Your task to perform on an android device: add a label to a message in the gmail app Image 0: 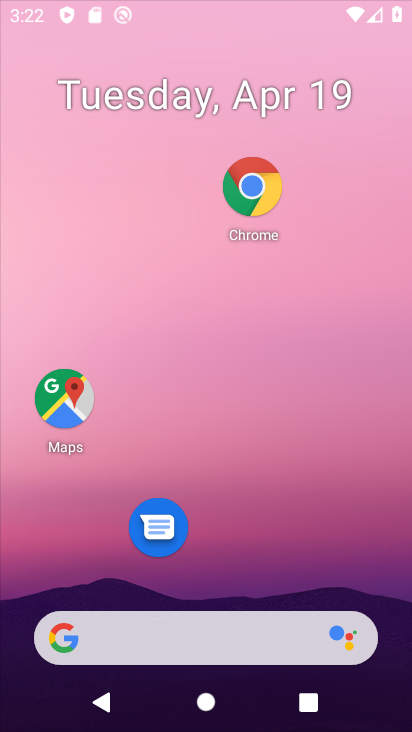
Step 0: click (246, 308)
Your task to perform on an android device: add a label to a message in the gmail app Image 1: 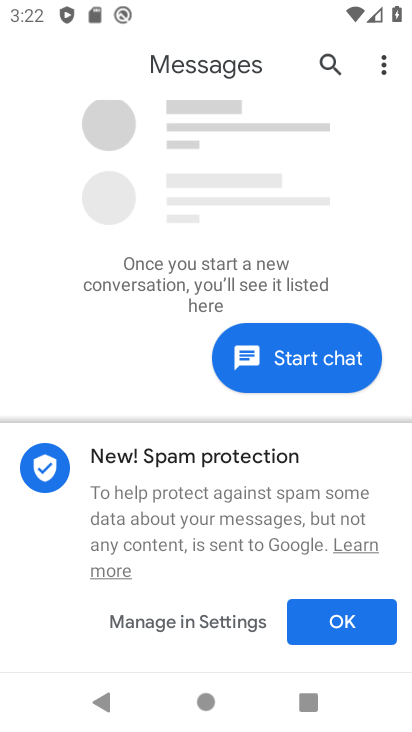
Step 1: press home button
Your task to perform on an android device: add a label to a message in the gmail app Image 2: 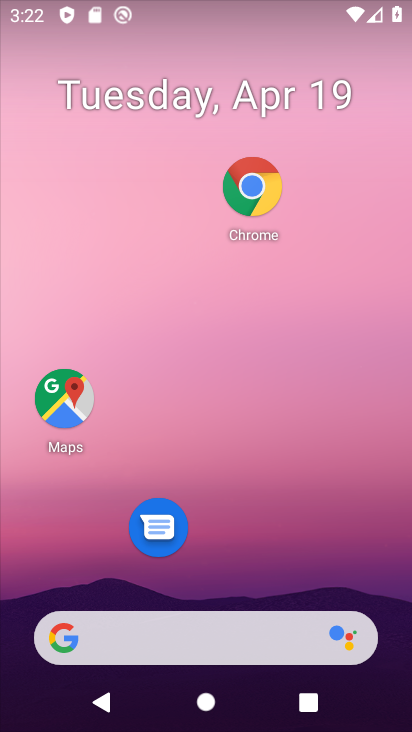
Step 2: drag from (270, 527) to (277, 147)
Your task to perform on an android device: add a label to a message in the gmail app Image 3: 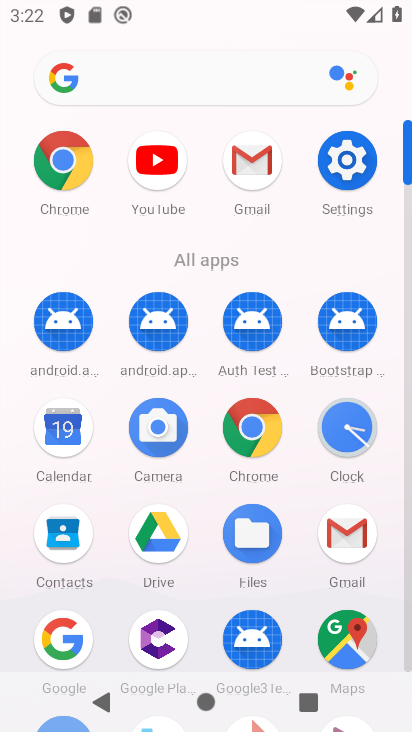
Step 3: click (246, 153)
Your task to perform on an android device: add a label to a message in the gmail app Image 4: 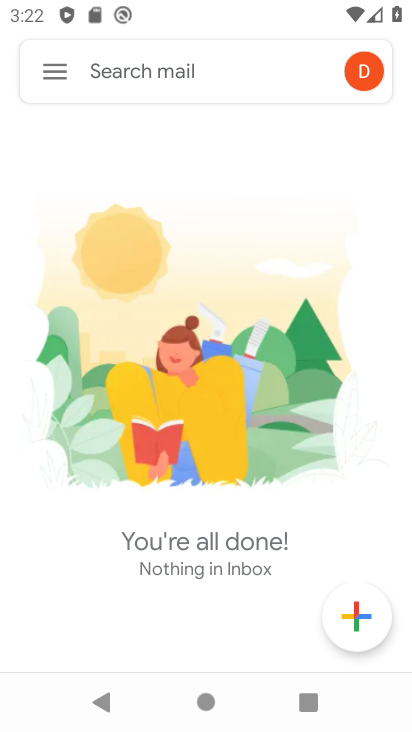
Step 4: click (53, 69)
Your task to perform on an android device: add a label to a message in the gmail app Image 5: 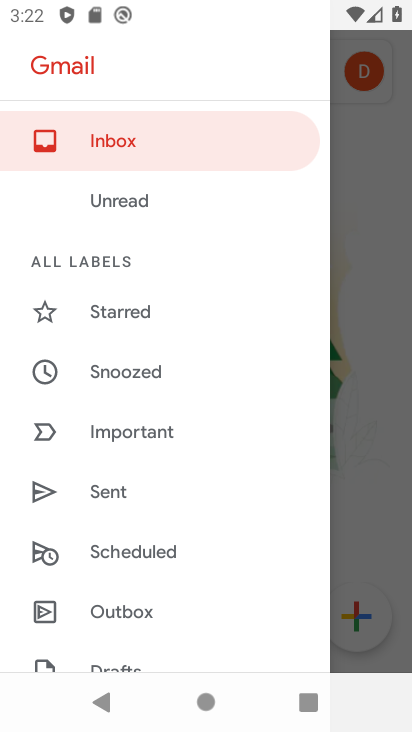
Step 5: drag from (144, 522) to (234, 58)
Your task to perform on an android device: add a label to a message in the gmail app Image 6: 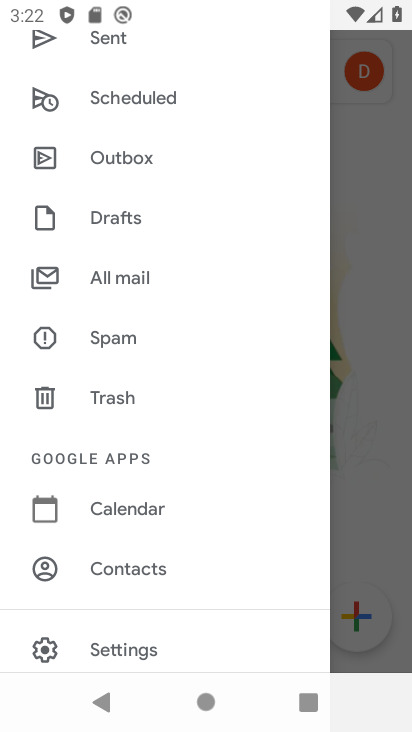
Step 6: click (149, 272)
Your task to perform on an android device: add a label to a message in the gmail app Image 7: 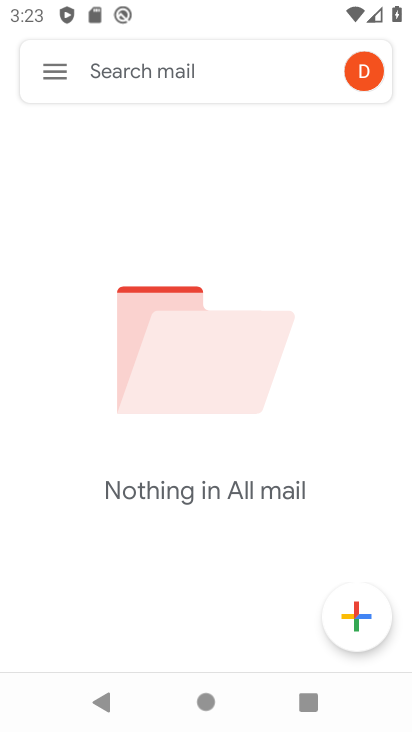
Step 7: task complete